Your task to perform on an android device: Open battery settings Image 0: 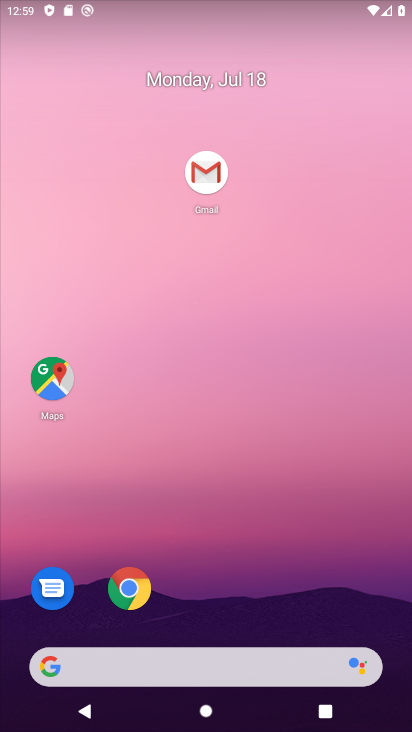
Step 0: drag from (230, 535) to (237, 2)
Your task to perform on an android device: Open battery settings Image 1: 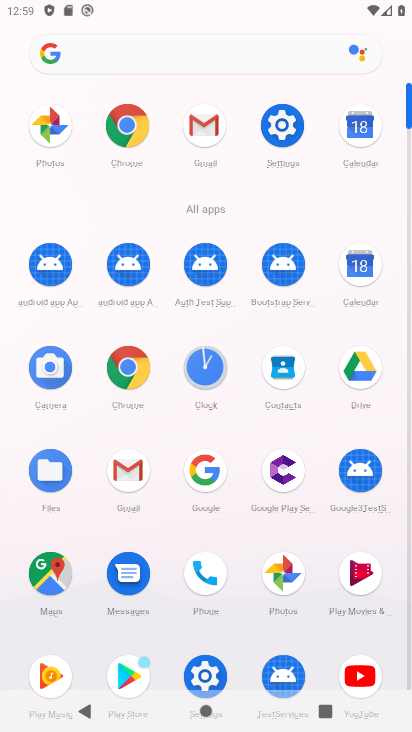
Step 1: click (208, 671)
Your task to perform on an android device: Open battery settings Image 2: 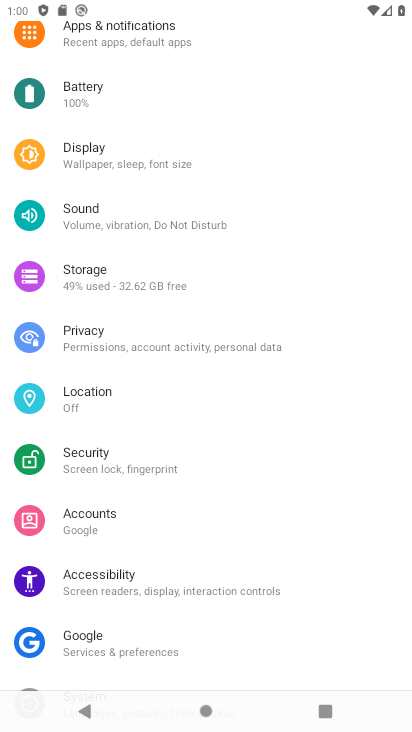
Step 2: click (91, 98)
Your task to perform on an android device: Open battery settings Image 3: 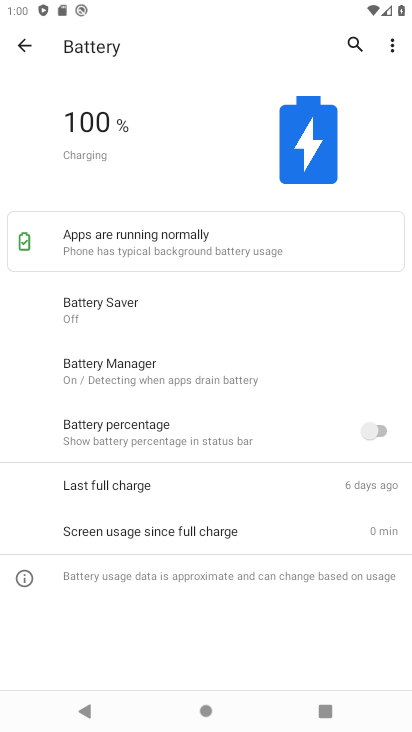
Step 3: click (72, 83)
Your task to perform on an android device: Open battery settings Image 4: 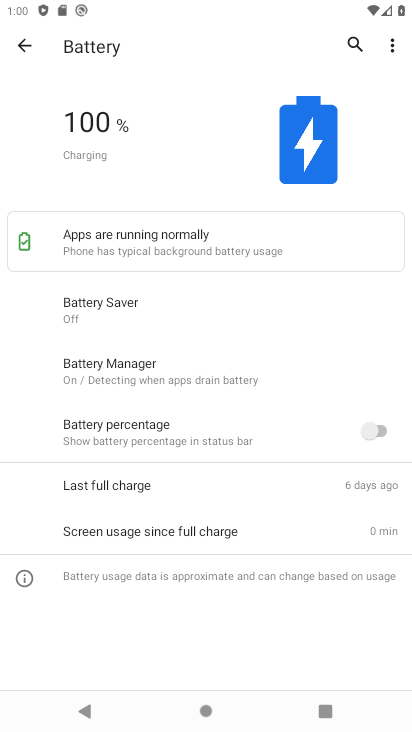
Step 4: task complete